Your task to perform on an android device: Is it going to rain today? Image 0: 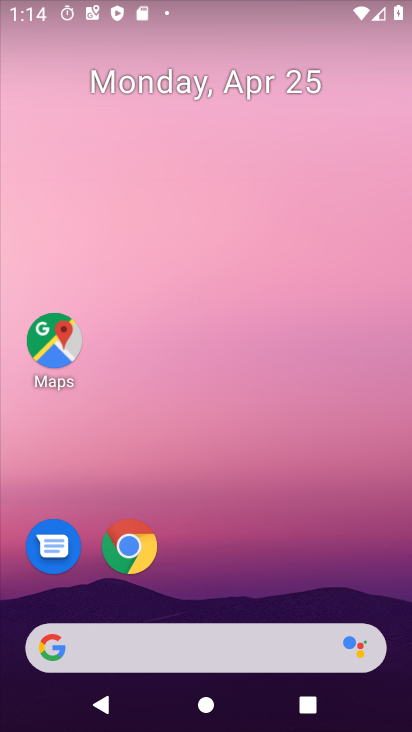
Step 0: drag from (201, 623) to (204, 32)
Your task to perform on an android device: Is it going to rain today? Image 1: 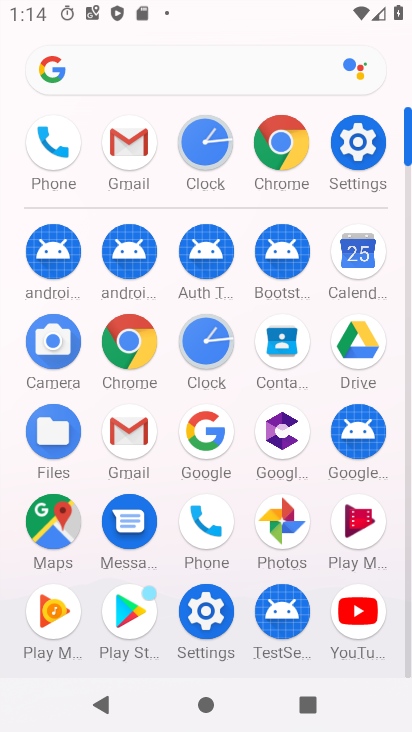
Step 1: click (203, 431)
Your task to perform on an android device: Is it going to rain today? Image 2: 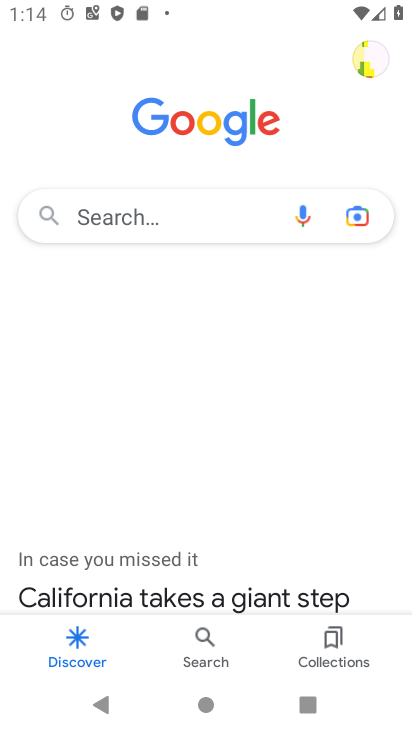
Step 2: click (216, 216)
Your task to perform on an android device: Is it going to rain today? Image 3: 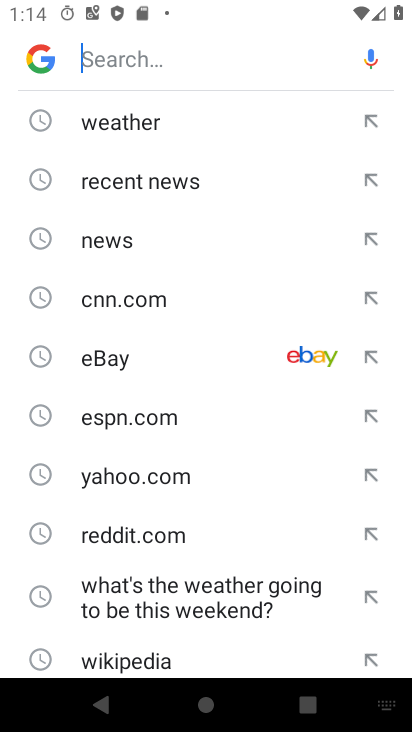
Step 3: click (80, 129)
Your task to perform on an android device: Is it going to rain today? Image 4: 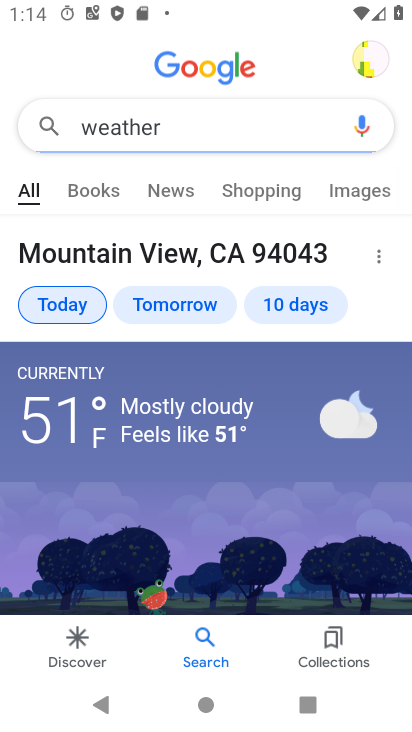
Step 4: task complete